Your task to perform on an android device: Find coffee shops on Maps Image 0: 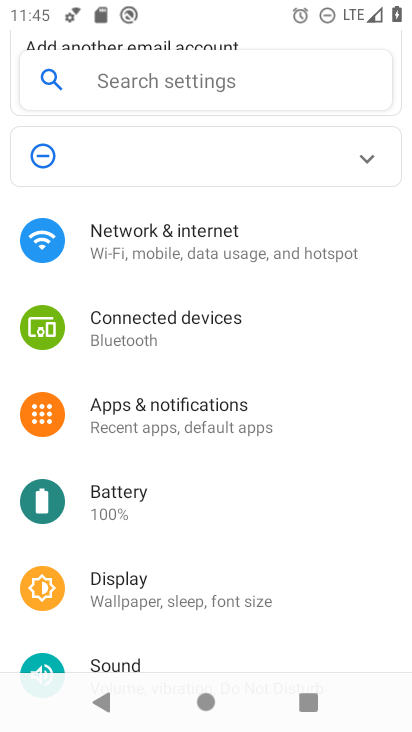
Step 0: press home button
Your task to perform on an android device: Find coffee shops on Maps Image 1: 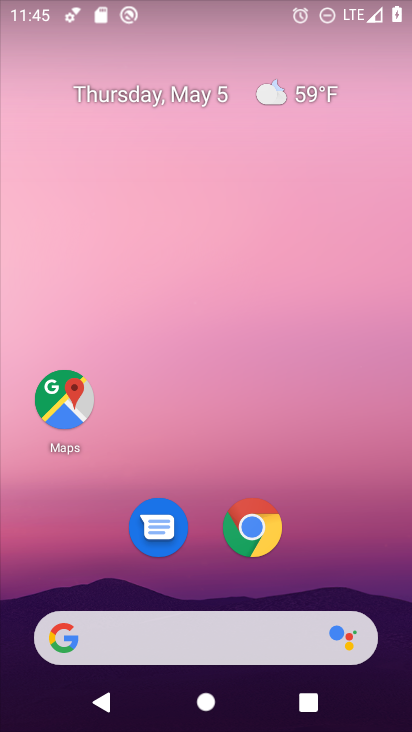
Step 1: click (59, 393)
Your task to perform on an android device: Find coffee shops on Maps Image 2: 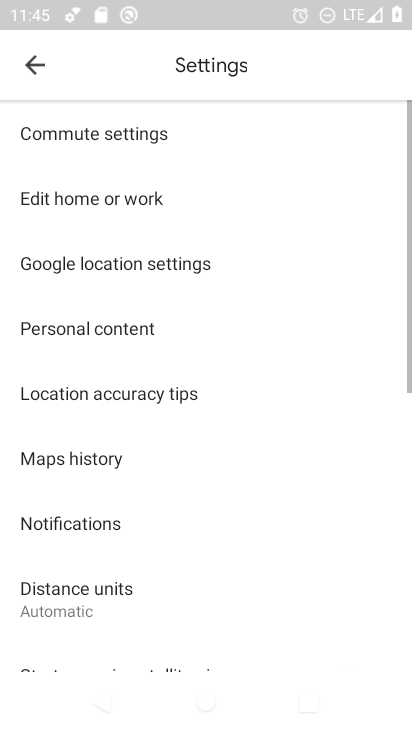
Step 2: click (20, 65)
Your task to perform on an android device: Find coffee shops on Maps Image 3: 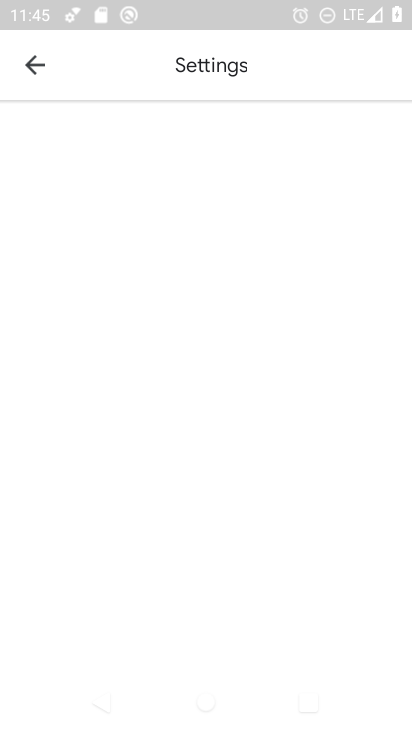
Step 3: click (36, 72)
Your task to perform on an android device: Find coffee shops on Maps Image 4: 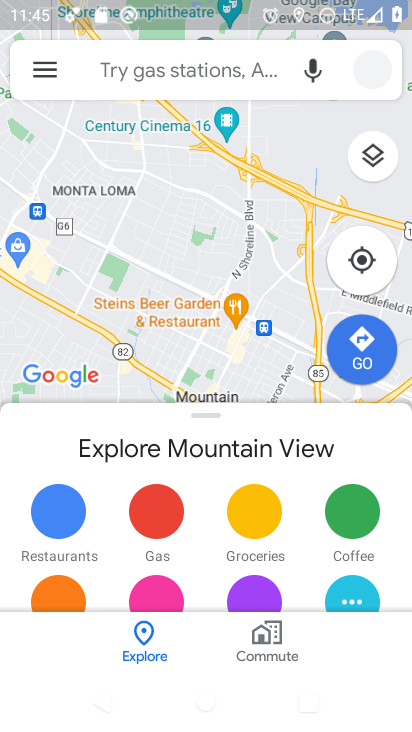
Step 4: click (192, 67)
Your task to perform on an android device: Find coffee shops on Maps Image 5: 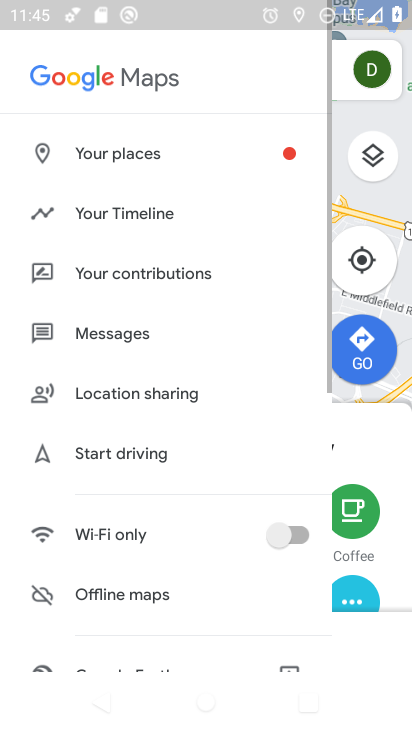
Step 5: click (186, 72)
Your task to perform on an android device: Find coffee shops on Maps Image 6: 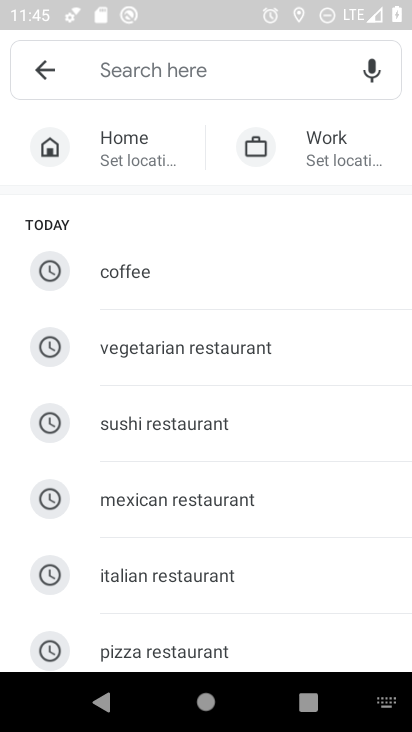
Step 6: click (123, 273)
Your task to perform on an android device: Find coffee shops on Maps Image 7: 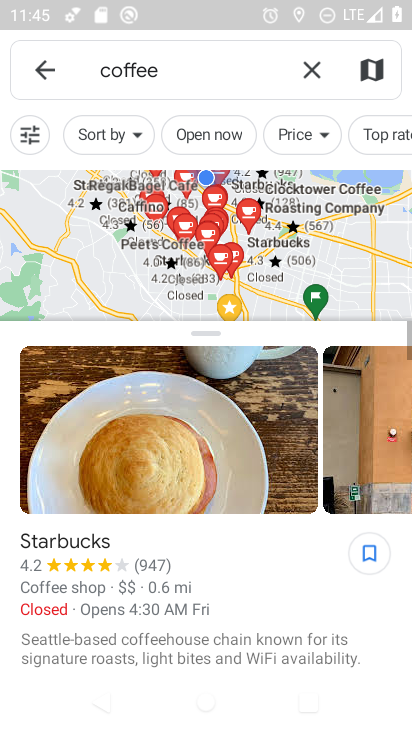
Step 7: task complete